Your task to perform on an android device: Open calendar and show me the first week of next month Image 0: 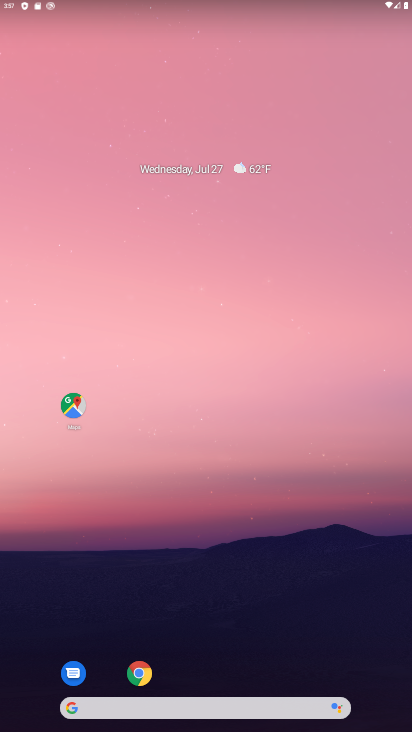
Step 0: press home button
Your task to perform on an android device: Open calendar and show me the first week of next month Image 1: 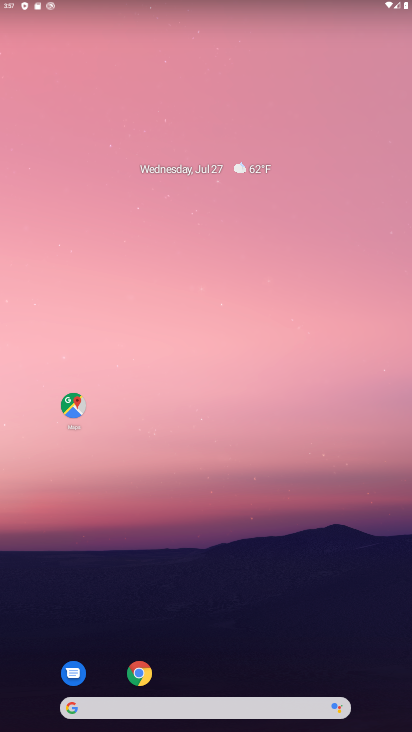
Step 1: drag from (81, 458) to (275, 80)
Your task to perform on an android device: Open calendar and show me the first week of next month Image 2: 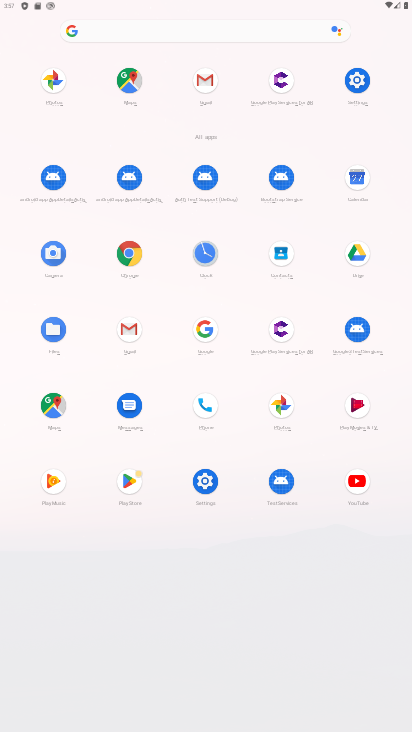
Step 2: click (358, 181)
Your task to perform on an android device: Open calendar and show me the first week of next month Image 3: 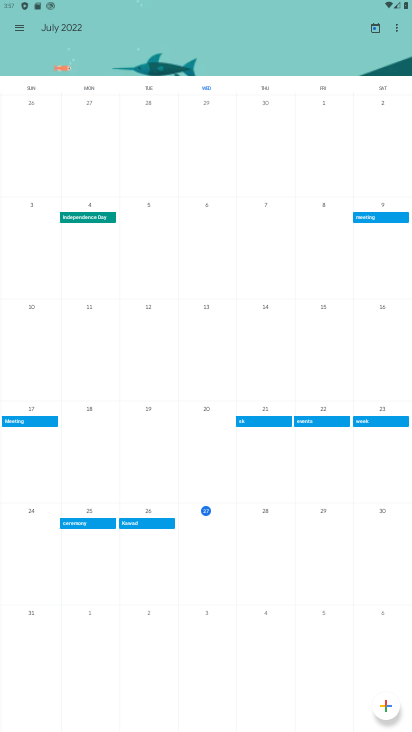
Step 3: click (26, 25)
Your task to perform on an android device: Open calendar and show me the first week of next month Image 4: 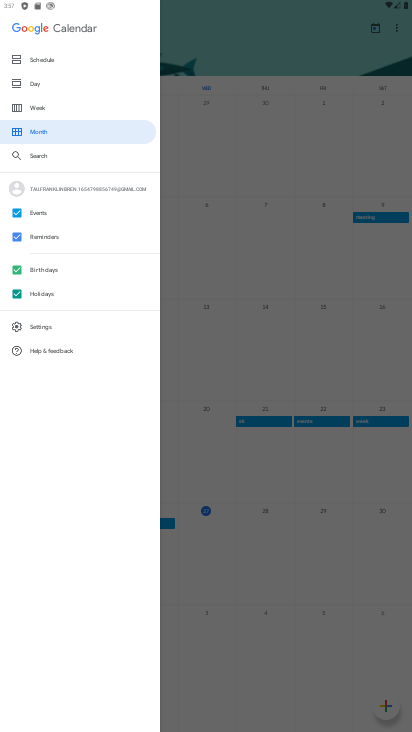
Step 4: click (41, 52)
Your task to perform on an android device: Open calendar and show me the first week of next month Image 5: 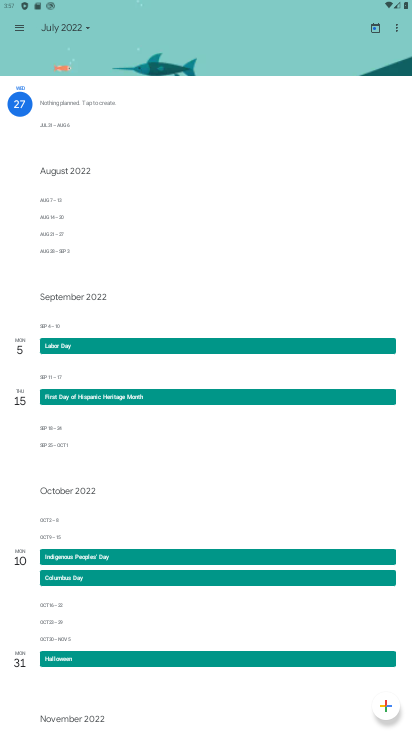
Step 5: click (64, 24)
Your task to perform on an android device: Open calendar and show me the first week of next month Image 6: 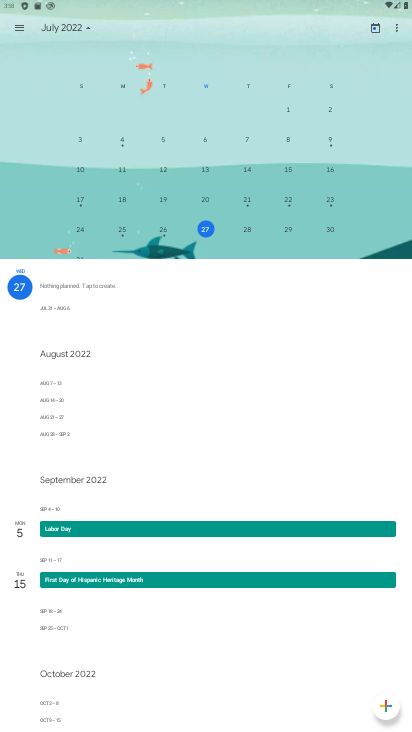
Step 6: drag from (379, 156) to (3, 176)
Your task to perform on an android device: Open calendar and show me the first week of next month Image 7: 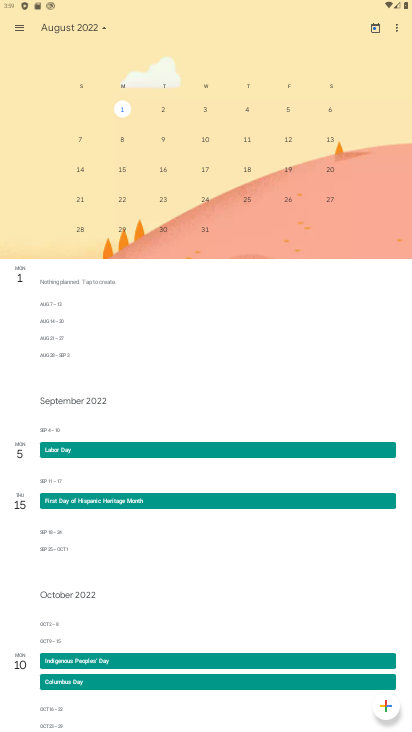
Step 7: click (158, 110)
Your task to perform on an android device: Open calendar and show me the first week of next month Image 8: 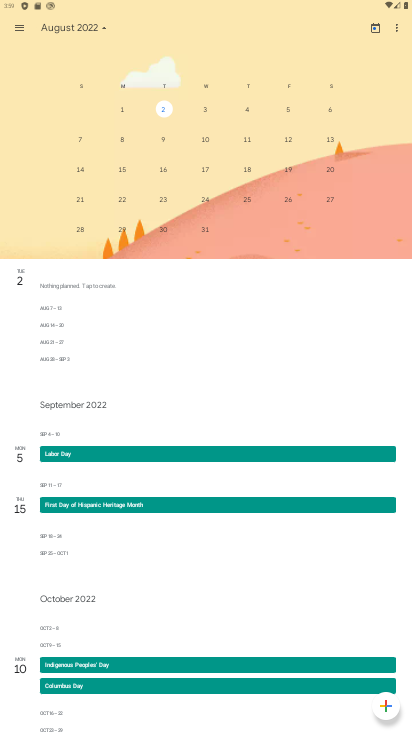
Step 8: click (207, 113)
Your task to perform on an android device: Open calendar and show me the first week of next month Image 9: 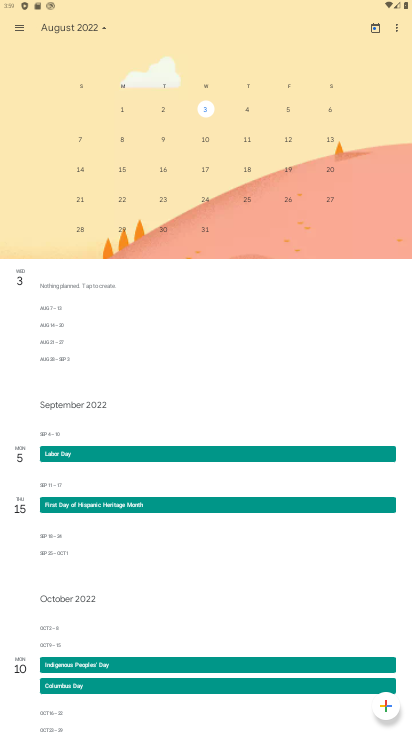
Step 9: click (244, 112)
Your task to perform on an android device: Open calendar and show me the first week of next month Image 10: 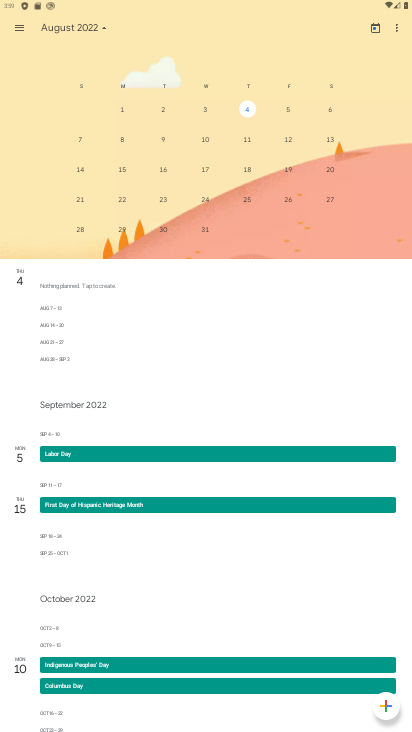
Step 10: click (286, 105)
Your task to perform on an android device: Open calendar and show me the first week of next month Image 11: 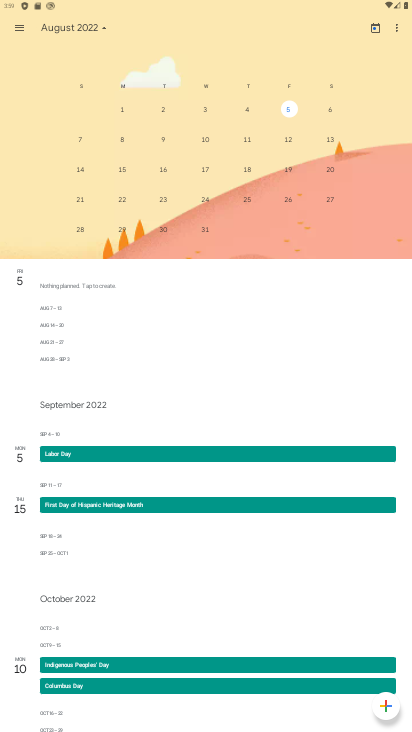
Step 11: task complete